Your task to perform on an android device: Open the map Image 0: 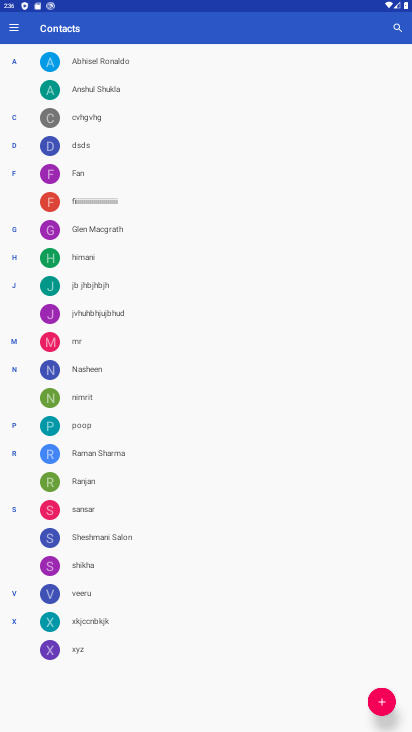
Step 0: press home button
Your task to perform on an android device: Open the map Image 1: 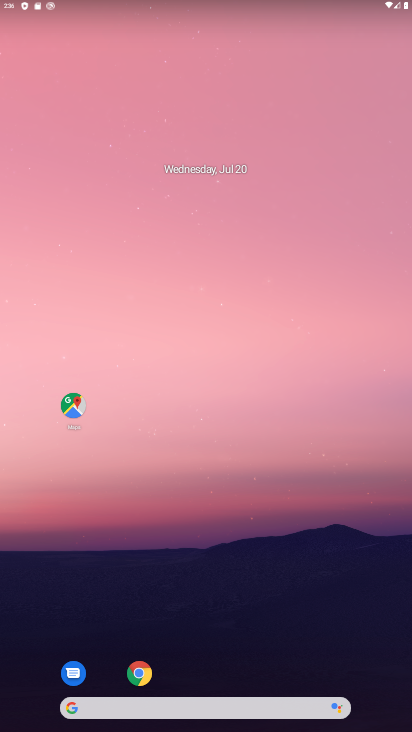
Step 1: click (71, 400)
Your task to perform on an android device: Open the map Image 2: 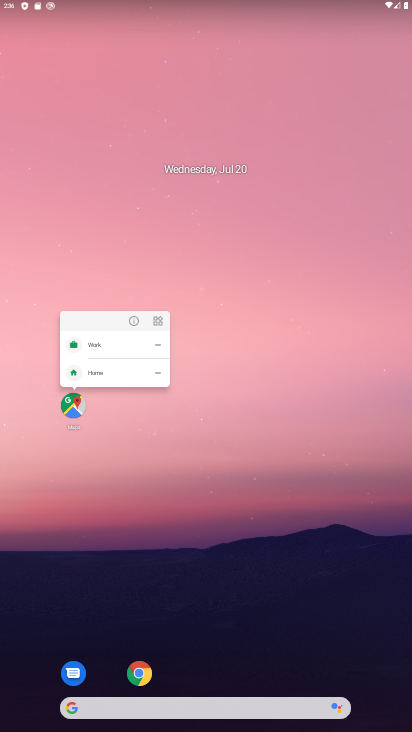
Step 2: click (72, 405)
Your task to perform on an android device: Open the map Image 3: 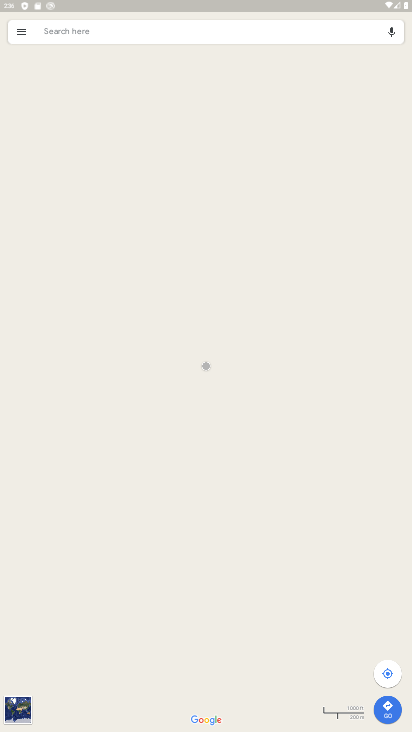
Step 3: task complete